Your task to perform on an android device: Search for Italian restaurants on Maps Image 0: 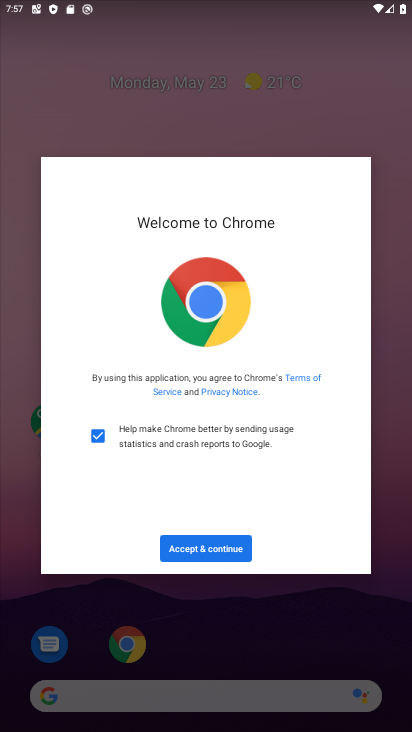
Step 0: press home button
Your task to perform on an android device: Search for Italian restaurants on Maps Image 1: 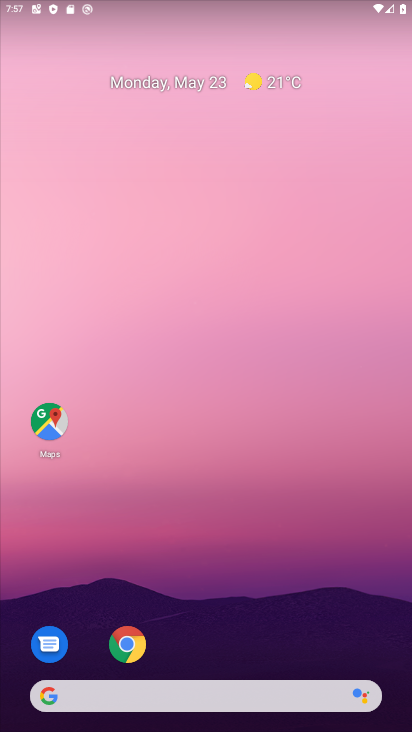
Step 1: drag from (178, 711) to (313, 7)
Your task to perform on an android device: Search for Italian restaurants on Maps Image 2: 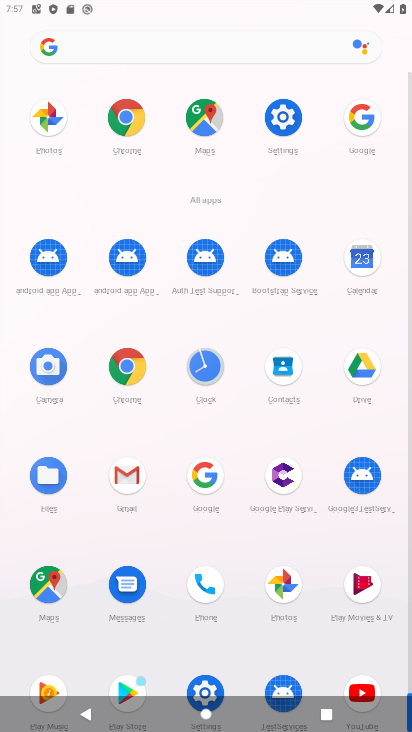
Step 2: click (191, 117)
Your task to perform on an android device: Search for Italian restaurants on Maps Image 3: 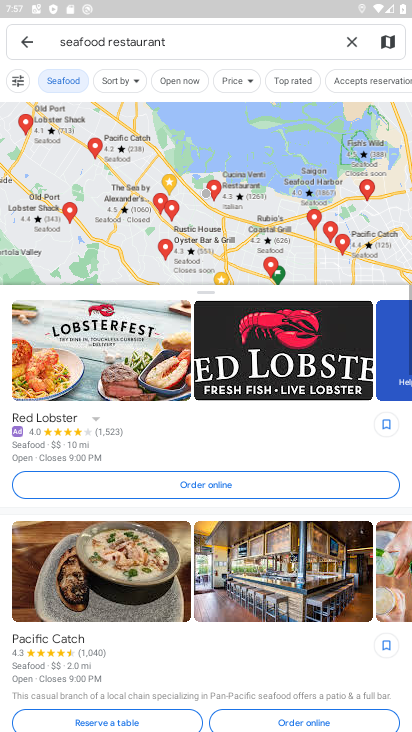
Step 3: click (350, 40)
Your task to perform on an android device: Search for Italian restaurants on Maps Image 4: 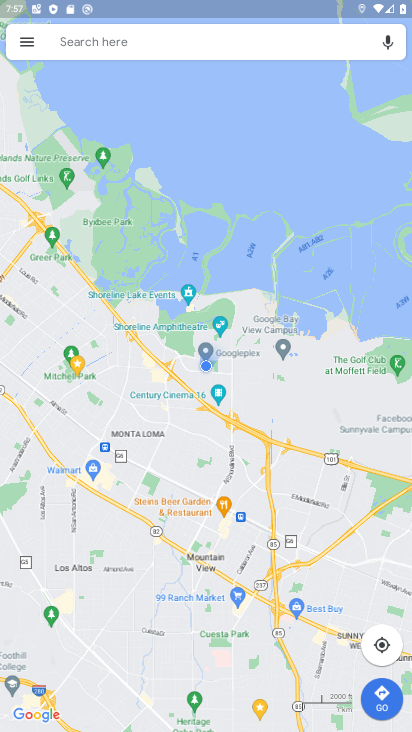
Step 4: click (229, 44)
Your task to perform on an android device: Search for Italian restaurants on Maps Image 5: 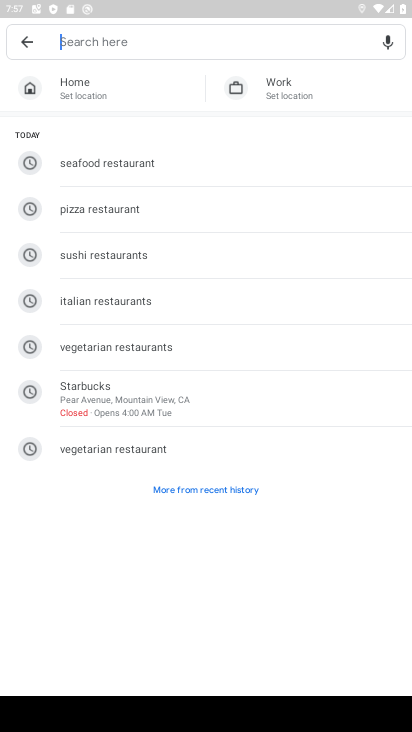
Step 5: click (137, 300)
Your task to perform on an android device: Search for Italian restaurants on Maps Image 6: 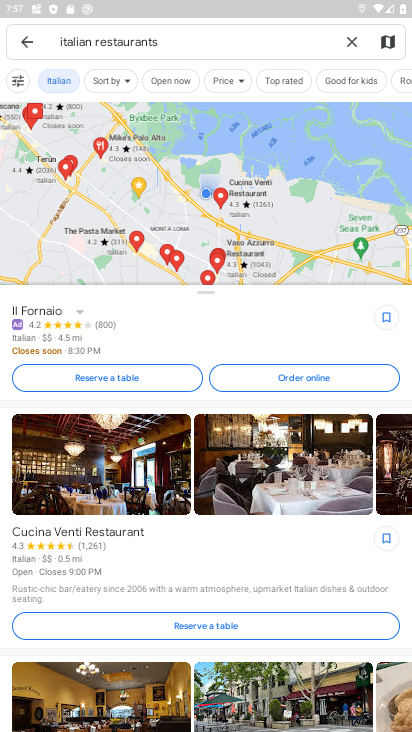
Step 6: task complete